Your task to perform on an android device: turn on location history Image 0: 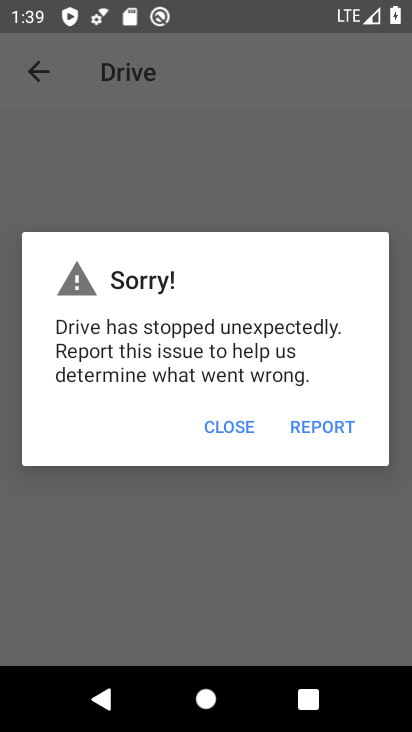
Step 0: drag from (197, 574) to (198, 515)
Your task to perform on an android device: turn on location history Image 1: 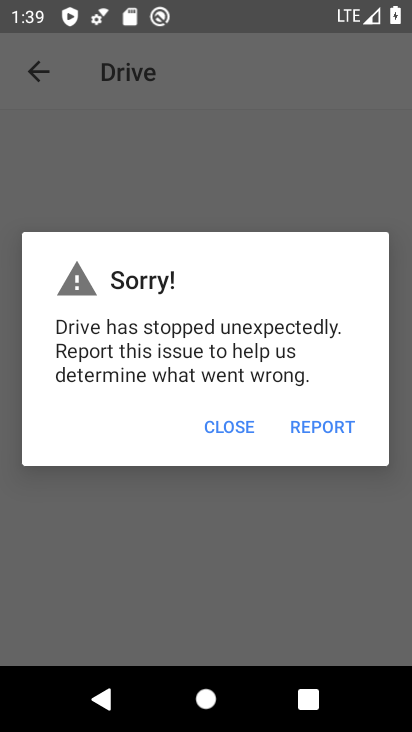
Step 1: press home button
Your task to perform on an android device: turn on location history Image 2: 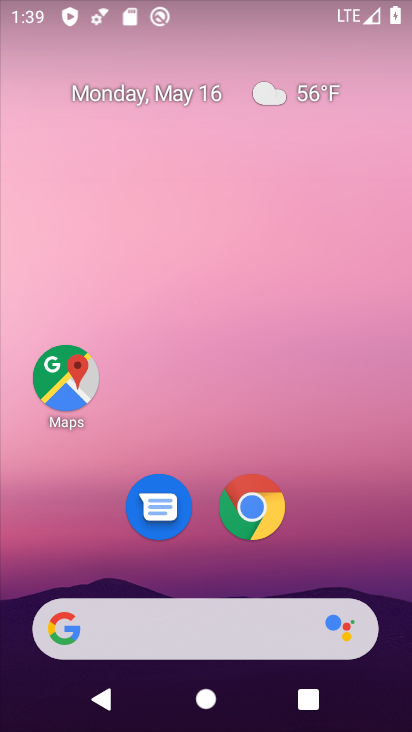
Step 2: drag from (194, 578) to (202, 191)
Your task to perform on an android device: turn on location history Image 3: 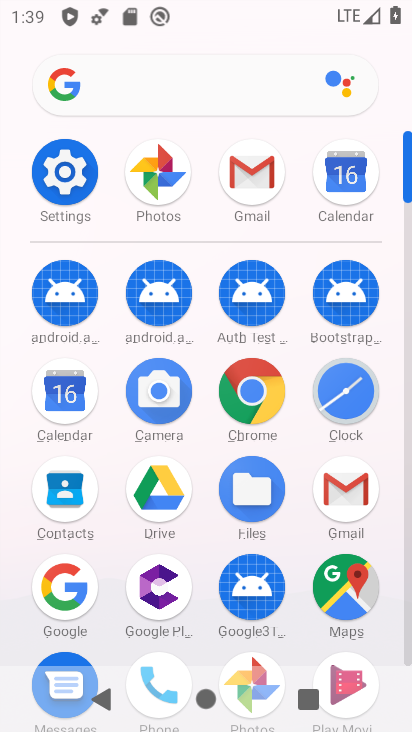
Step 3: click (85, 163)
Your task to perform on an android device: turn on location history Image 4: 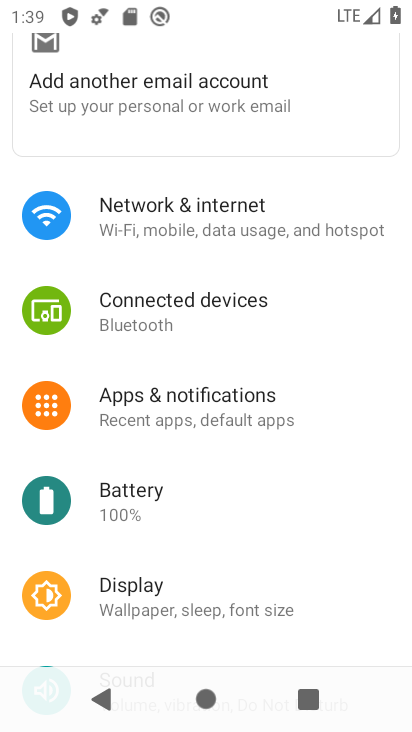
Step 4: drag from (216, 559) to (257, 292)
Your task to perform on an android device: turn on location history Image 5: 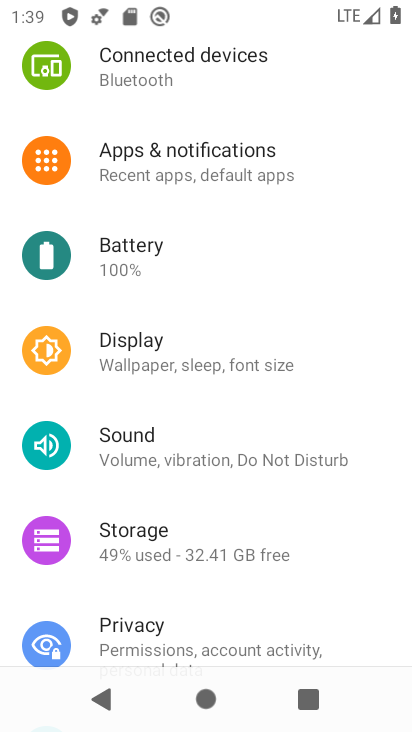
Step 5: drag from (189, 592) to (234, 367)
Your task to perform on an android device: turn on location history Image 6: 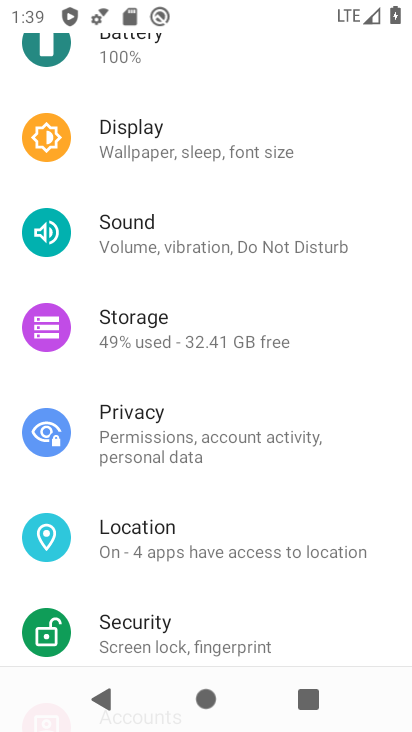
Step 6: click (170, 527)
Your task to perform on an android device: turn on location history Image 7: 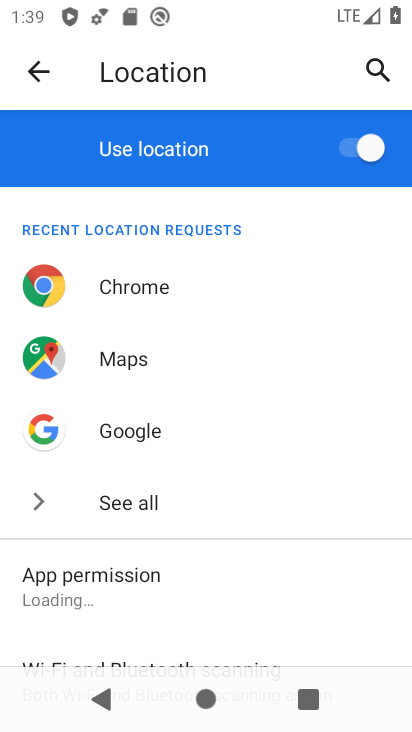
Step 7: drag from (219, 577) to (239, 338)
Your task to perform on an android device: turn on location history Image 8: 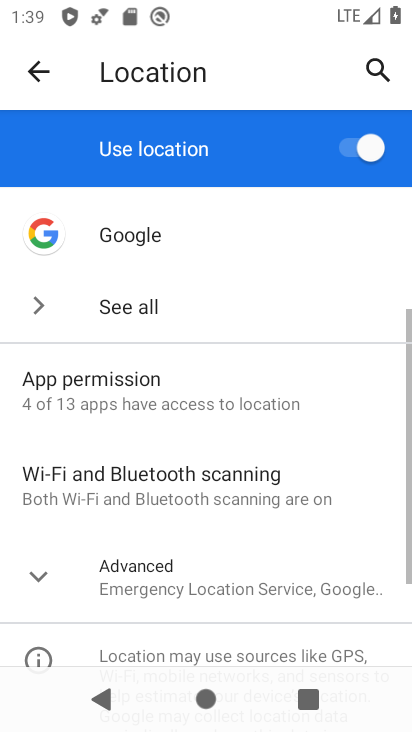
Step 8: click (166, 562)
Your task to perform on an android device: turn on location history Image 9: 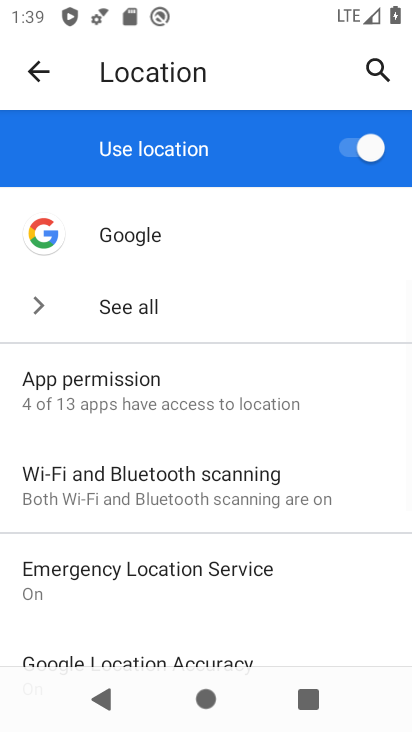
Step 9: drag from (199, 583) to (234, 390)
Your task to perform on an android device: turn on location history Image 10: 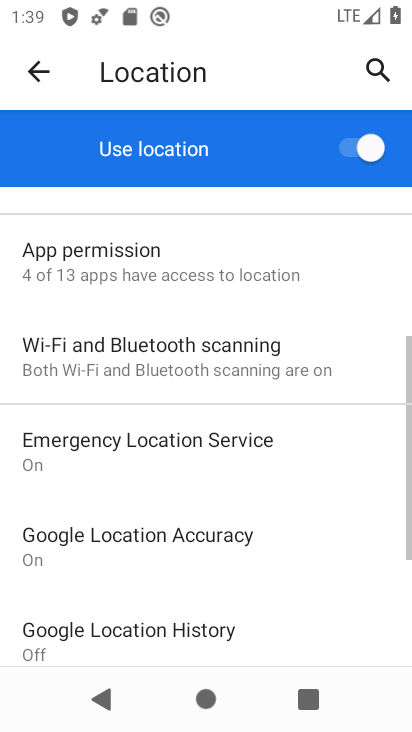
Step 10: drag from (246, 559) to (249, 439)
Your task to perform on an android device: turn on location history Image 11: 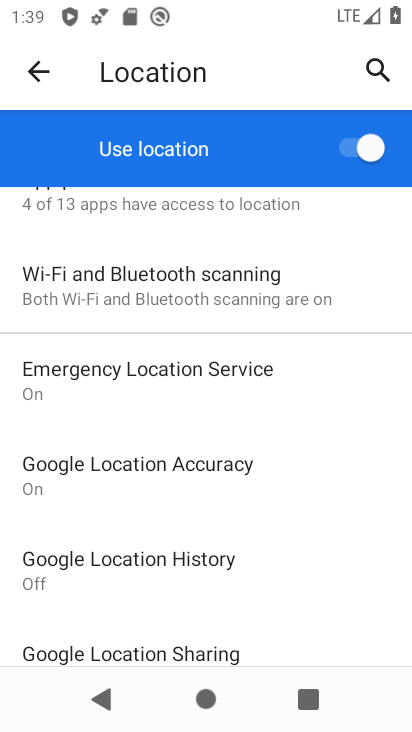
Step 11: click (207, 545)
Your task to perform on an android device: turn on location history Image 12: 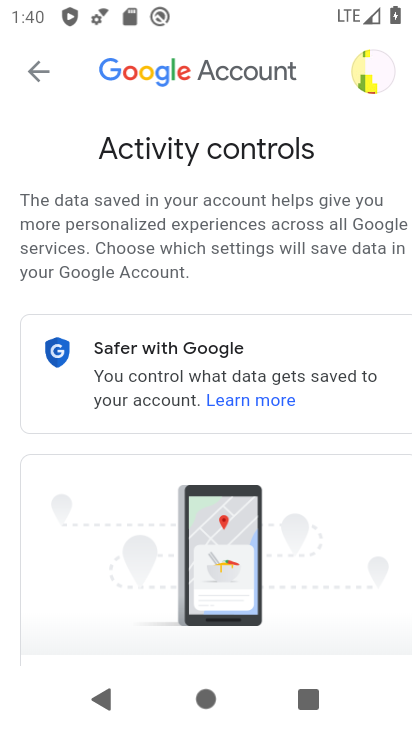
Step 12: task complete